Your task to perform on an android device: open a new tab in the chrome app Image 0: 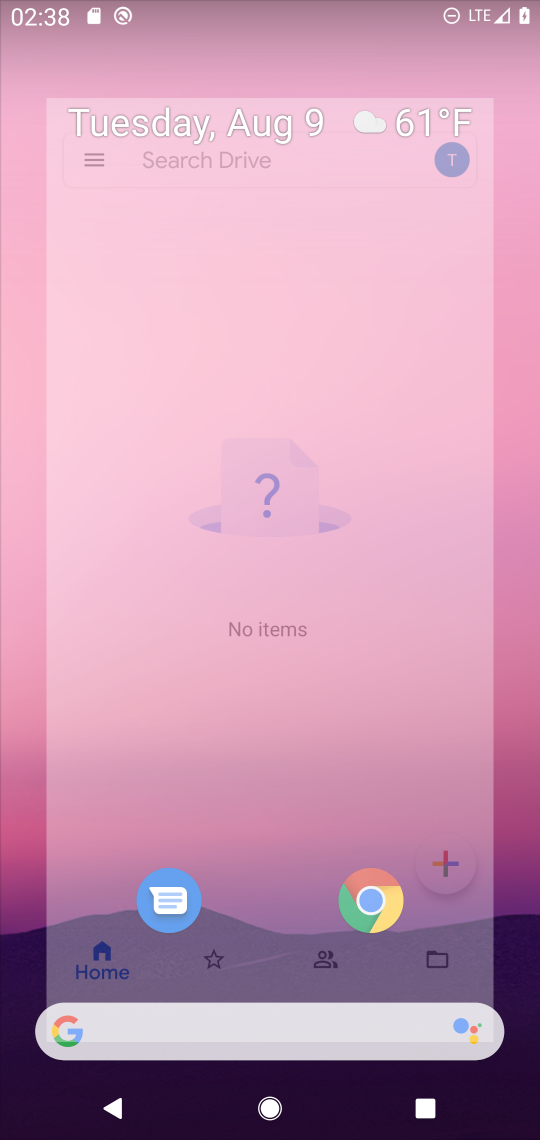
Step 0: press home button
Your task to perform on an android device: open a new tab in the chrome app Image 1: 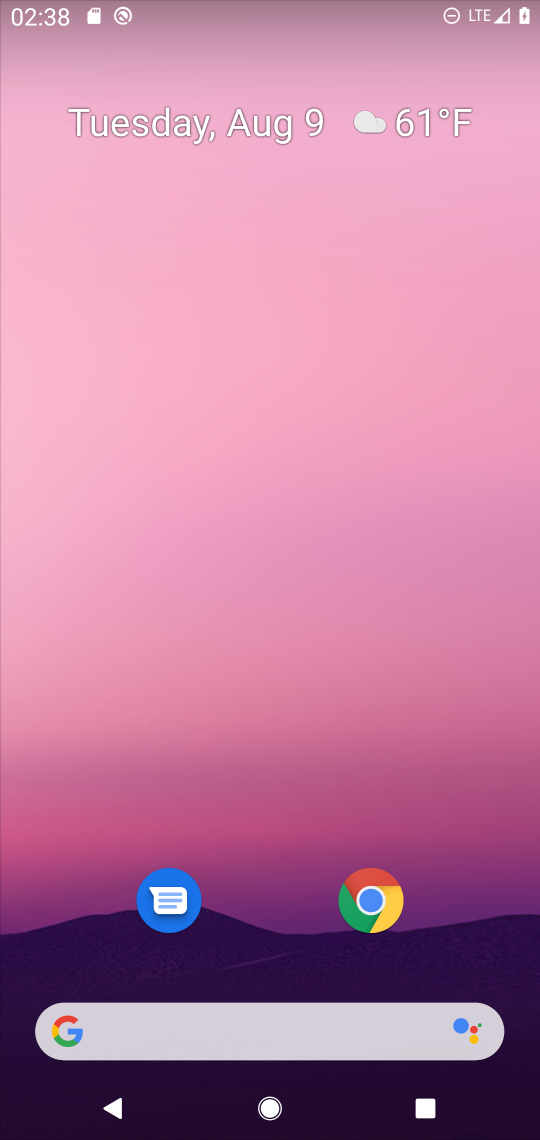
Step 1: drag from (452, 959) to (449, 251)
Your task to perform on an android device: open a new tab in the chrome app Image 2: 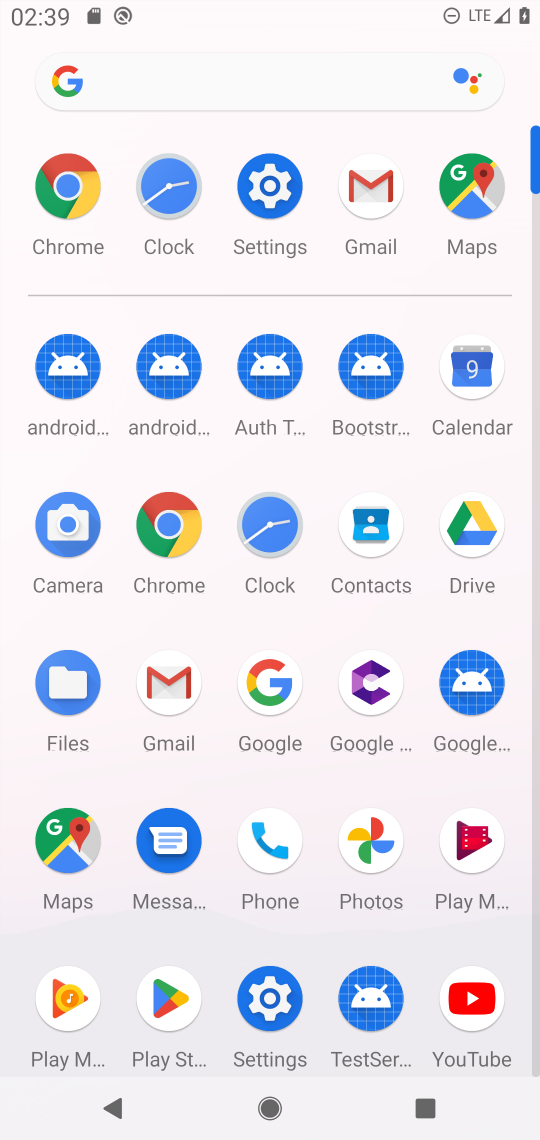
Step 2: click (168, 515)
Your task to perform on an android device: open a new tab in the chrome app Image 3: 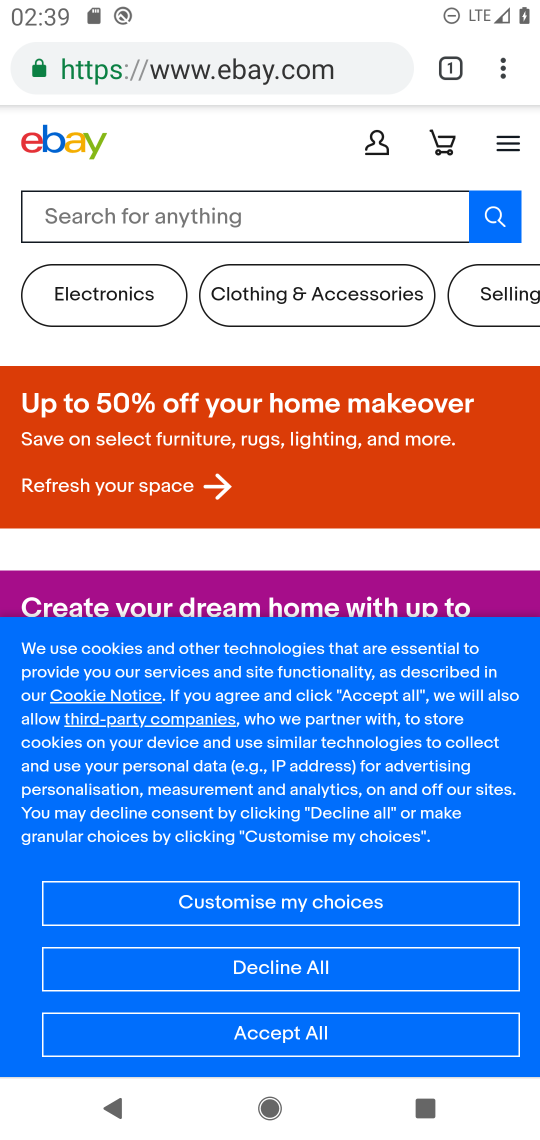
Step 3: click (501, 66)
Your task to perform on an android device: open a new tab in the chrome app Image 4: 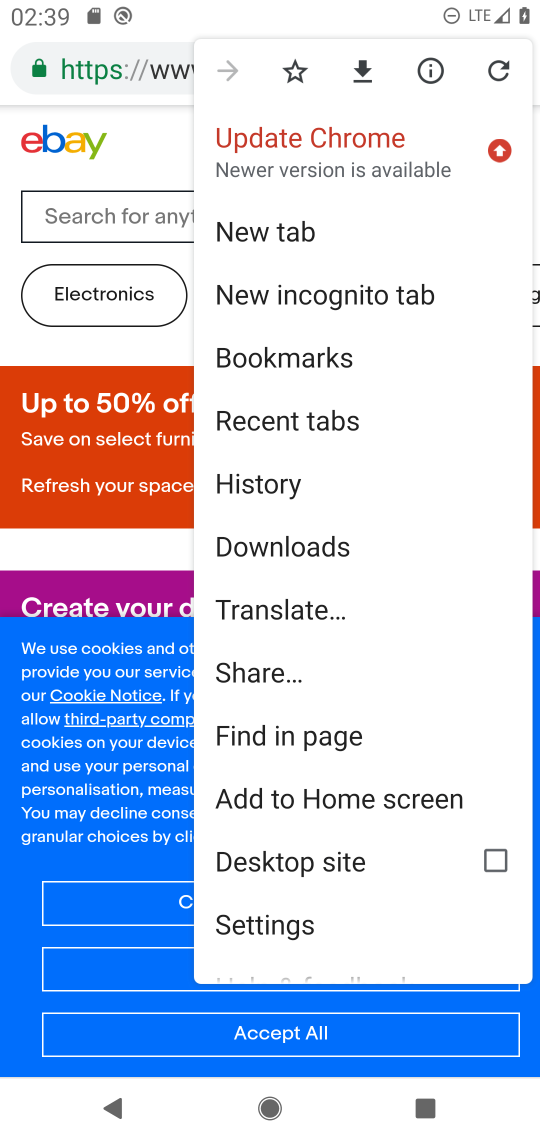
Step 4: click (294, 237)
Your task to perform on an android device: open a new tab in the chrome app Image 5: 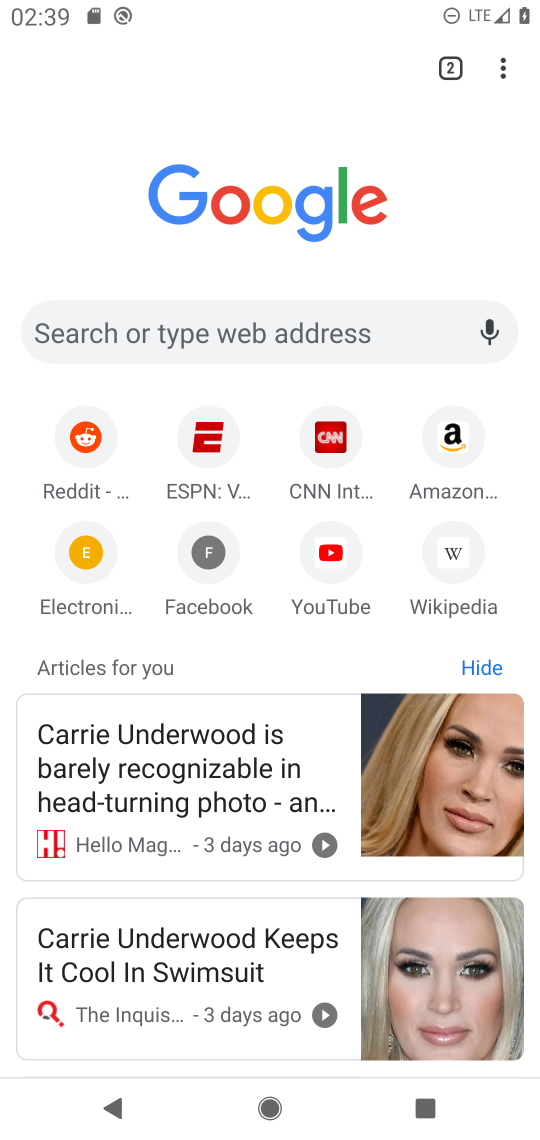
Step 5: task complete